Your task to perform on an android device: Open calendar and show me the third week of next month Image 0: 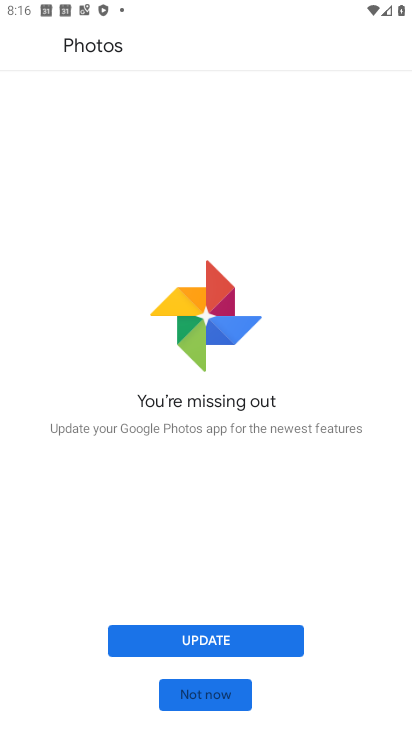
Step 0: press home button
Your task to perform on an android device: Open calendar and show me the third week of next month Image 1: 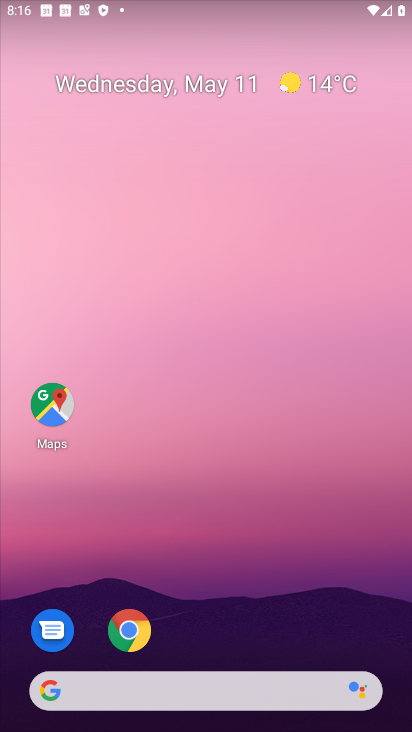
Step 1: drag from (217, 657) to (156, 2)
Your task to perform on an android device: Open calendar and show me the third week of next month Image 2: 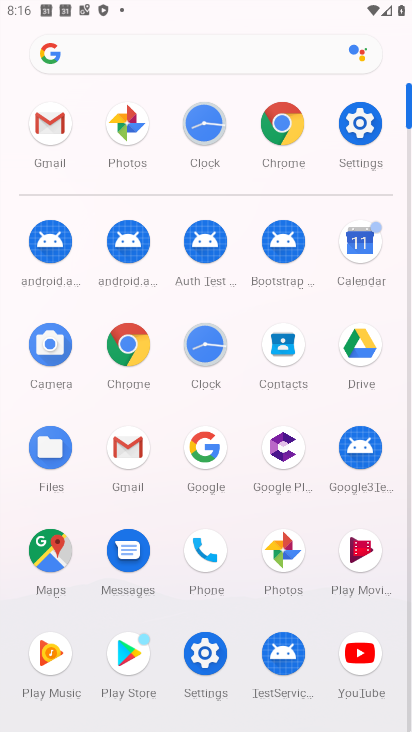
Step 2: click (350, 239)
Your task to perform on an android device: Open calendar and show me the third week of next month Image 3: 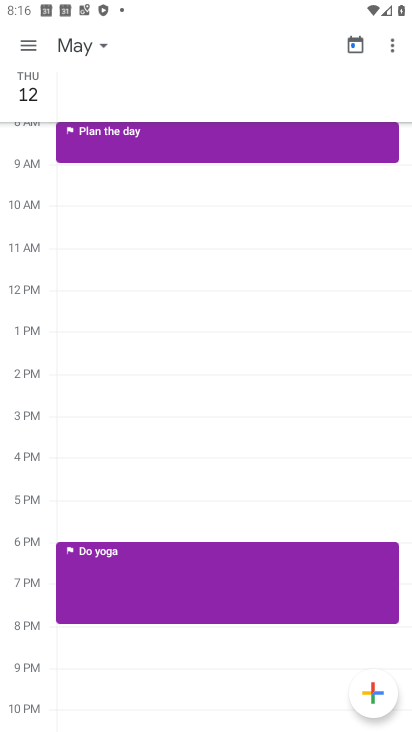
Step 3: click (23, 44)
Your task to perform on an android device: Open calendar and show me the third week of next month Image 4: 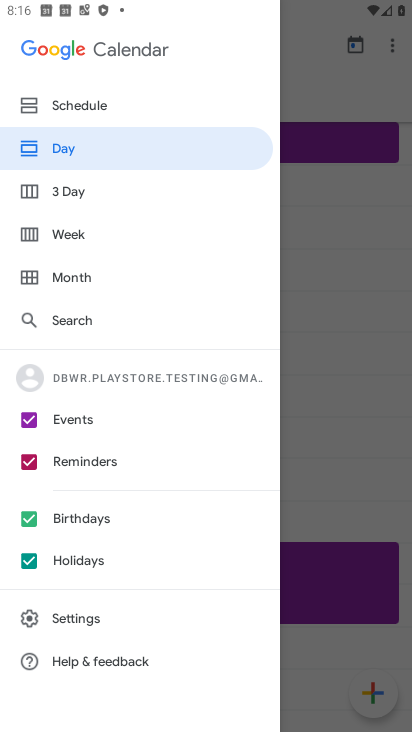
Step 4: click (52, 223)
Your task to perform on an android device: Open calendar and show me the third week of next month Image 5: 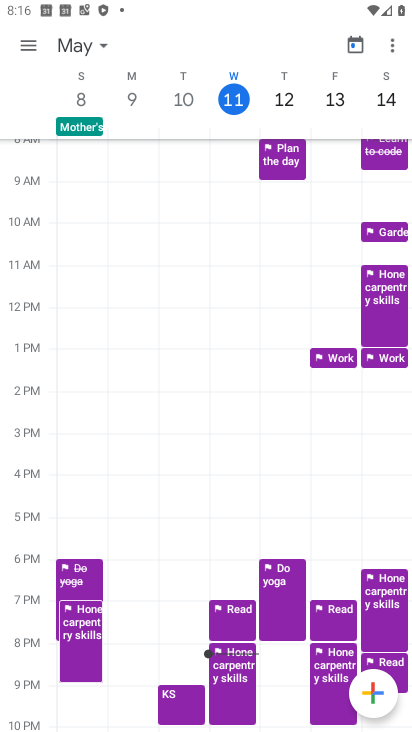
Step 5: task complete